Your task to perform on an android device: toggle improve location accuracy Image 0: 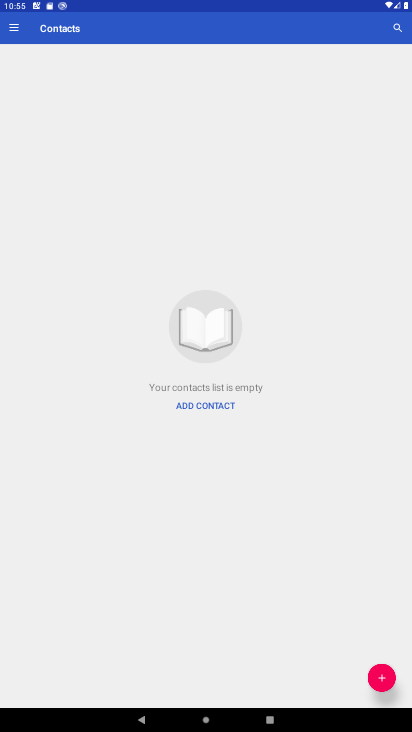
Step 0: press home button
Your task to perform on an android device: toggle improve location accuracy Image 1: 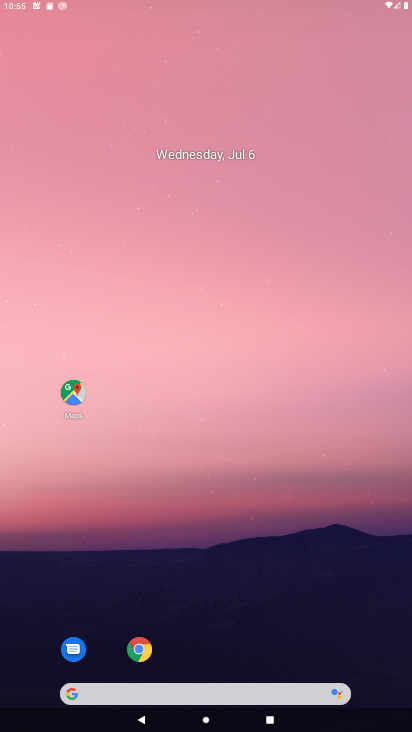
Step 1: drag from (284, 660) to (255, 9)
Your task to perform on an android device: toggle improve location accuracy Image 2: 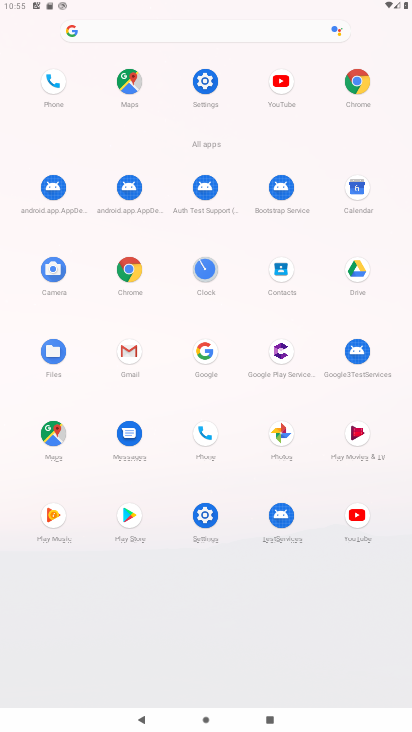
Step 2: click (197, 86)
Your task to perform on an android device: toggle improve location accuracy Image 3: 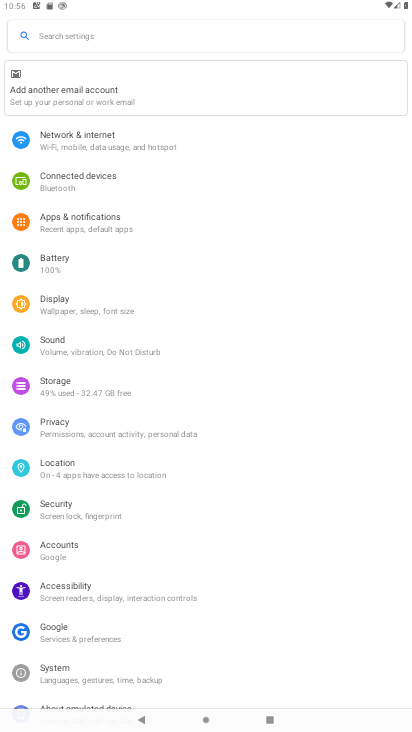
Step 3: click (63, 465)
Your task to perform on an android device: toggle improve location accuracy Image 4: 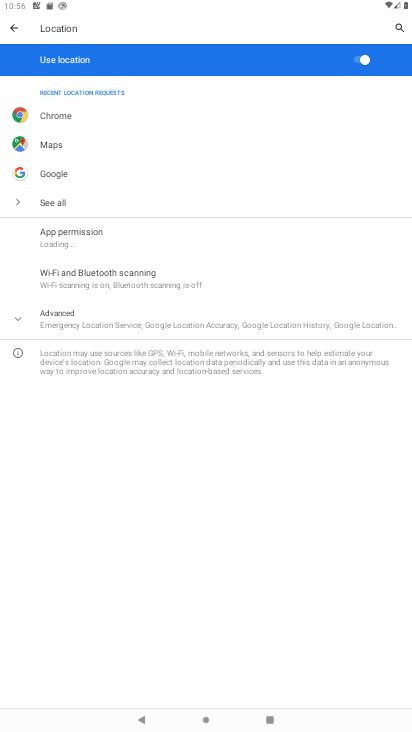
Step 4: click (138, 320)
Your task to perform on an android device: toggle improve location accuracy Image 5: 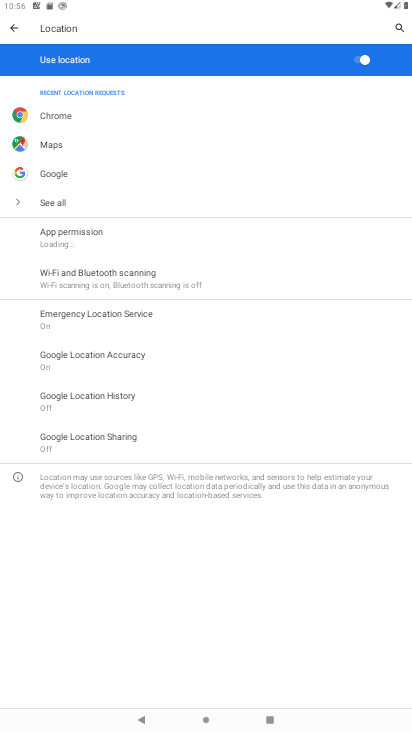
Step 5: click (107, 357)
Your task to perform on an android device: toggle improve location accuracy Image 6: 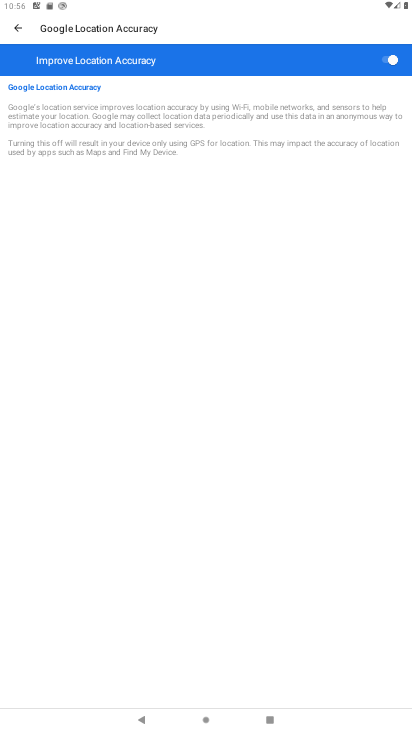
Step 6: click (389, 58)
Your task to perform on an android device: toggle improve location accuracy Image 7: 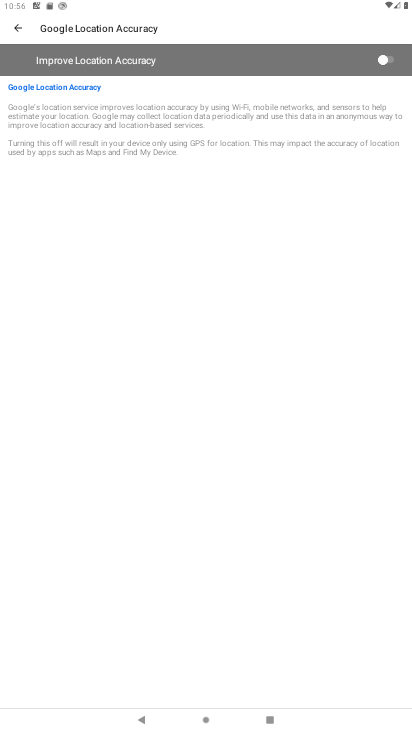
Step 7: task complete